Your task to perform on an android device: show emergency info Image 0: 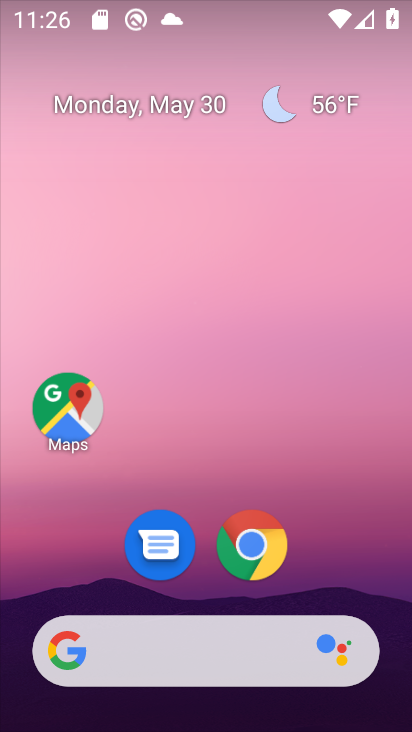
Step 0: drag from (51, 606) to (198, 184)
Your task to perform on an android device: show emergency info Image 1: 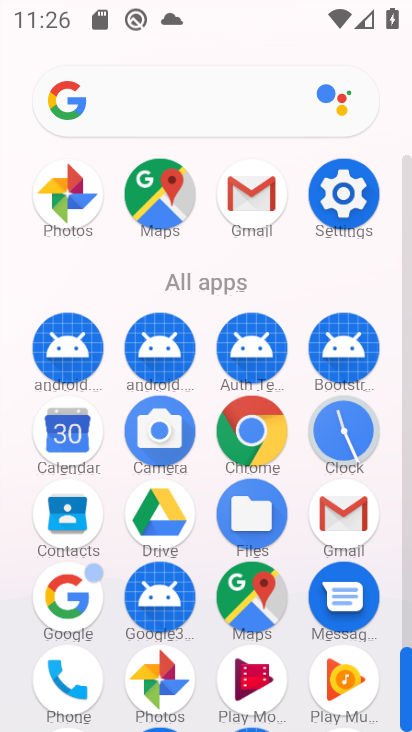
Step 1: drag from (101, 607) to (187, 346)
Your task to perform on an android device: show emergency info Image 2: 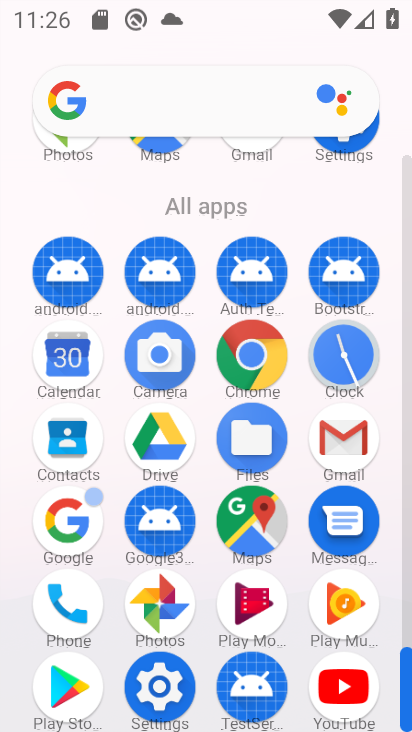
Step 2: click (161, 692)
Your task to perform on an android device: show emergency info Image 3: 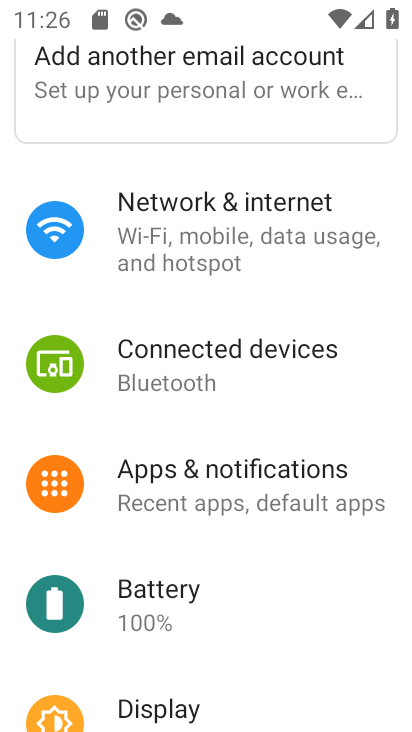
Step 3: drag from (193, 663) to (322, 149)
Your task to perform on an android device: show emergency info Image 4: 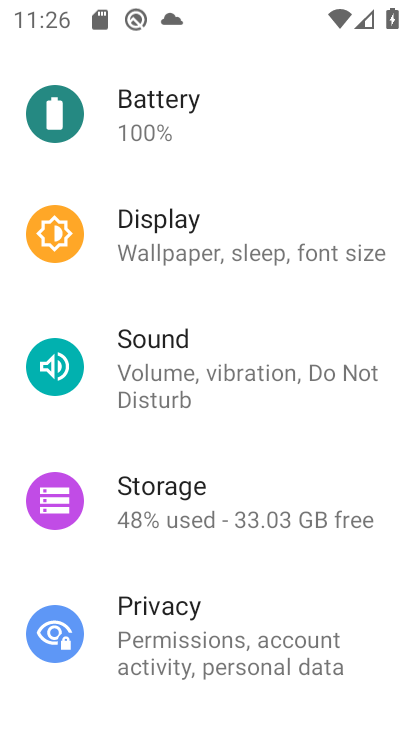
Step 4: drag from (210, 569) to (299, 208)
Your task to perform on an android device: show emergency info Image 5: 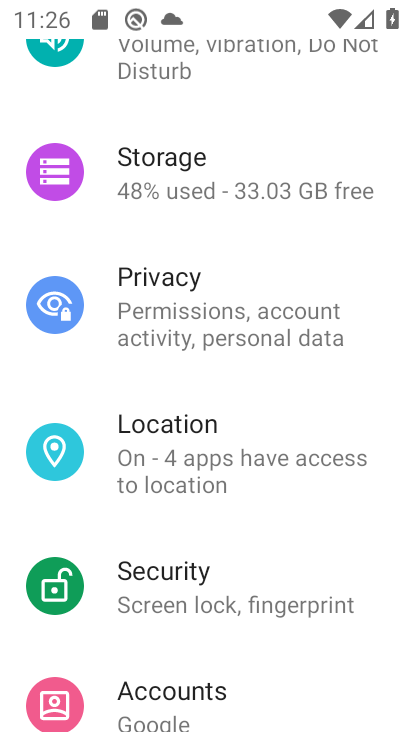
Step 5: drag from (221, 625) to (372, 82)
Your task to perform on an android device: show emergency info Image 6: 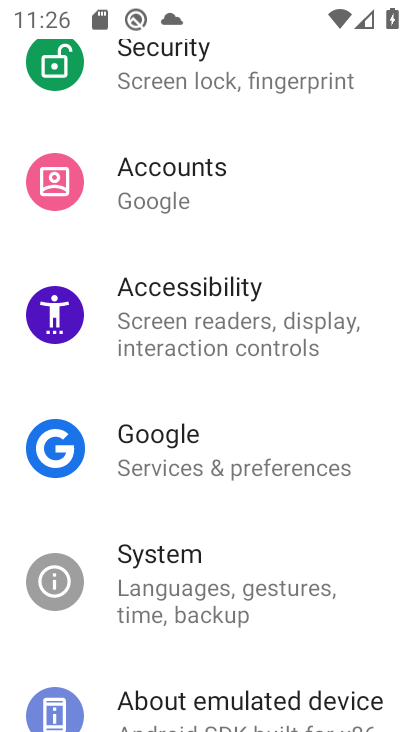
Step 6: drag from (232, 667) to (365, 164)
Your task to perform on an android device: show emergency info Image 7: 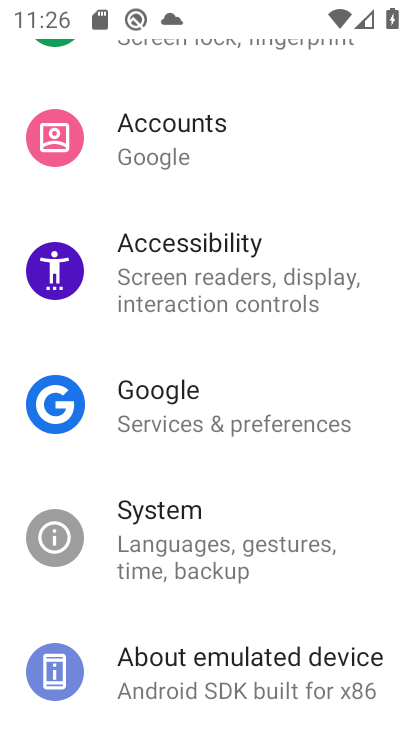
Step 7: click (278, 688)
Your task to perform on an android device: show emergency info Image 8: 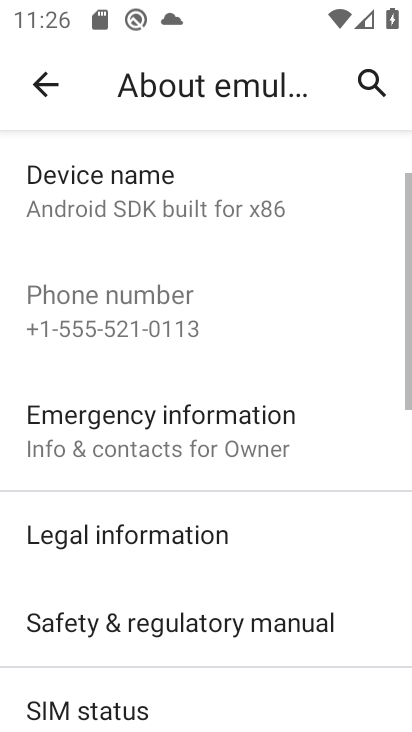
Step 8: click (227, 438)
Your task to perform on an android device: show emergency info Image 9: 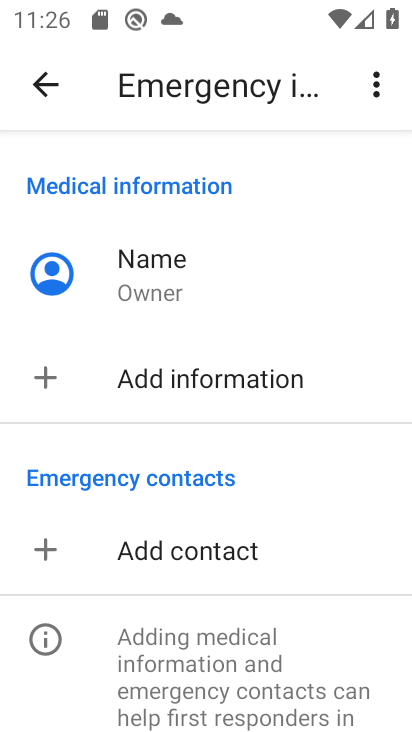
Step 9: task complete